Your task to perform on an android device: turn on airplane mode Image 0: 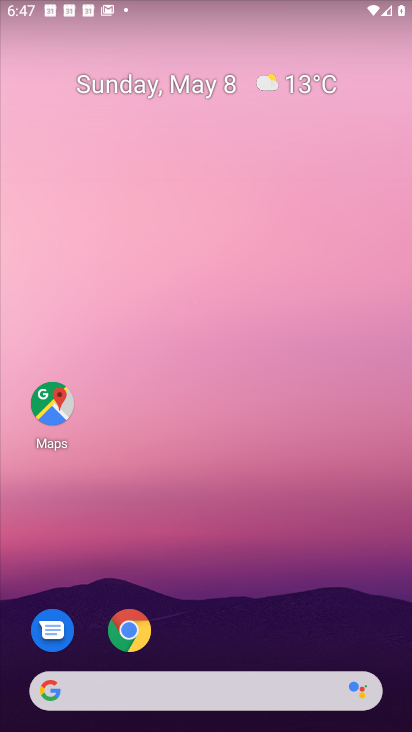
Step 0: drag from (226, 570) to (109, 55)
Your task to perform on an android device: turn on airplane mode Image 1: 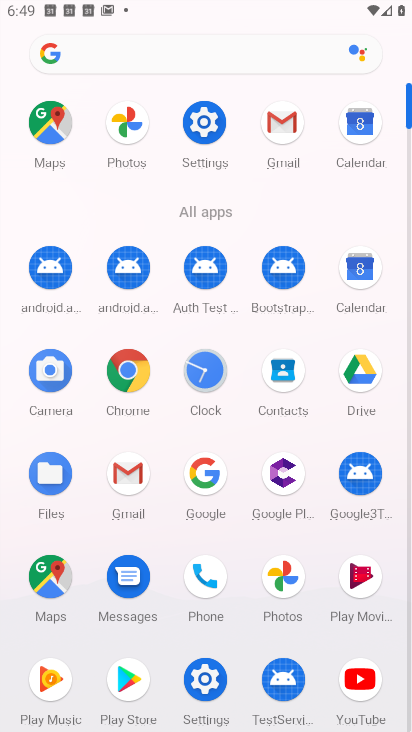
Step 1: click (209, 115)
Your task to perform on an android device: turn on airplane mode Image 2: 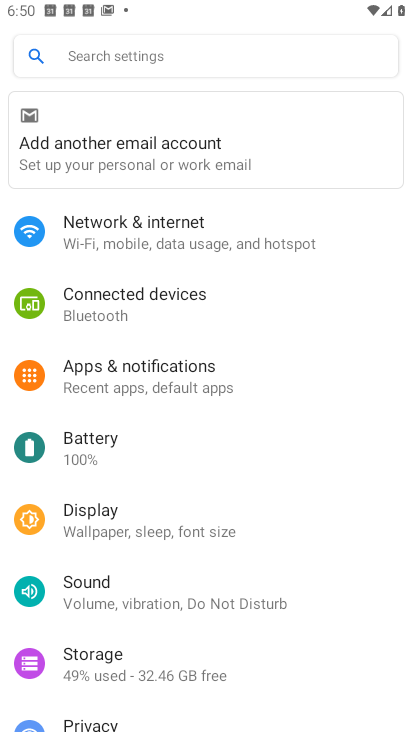
Step 2: click (110, 378)
Your task to perform on an android device: turn on airplane mode Image 3: 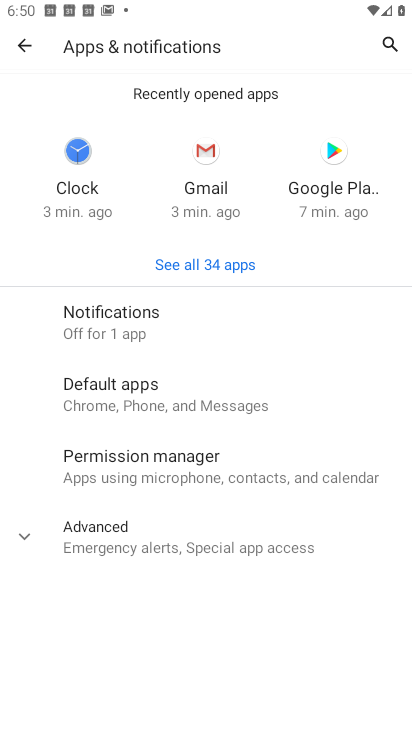
Step 3: click (114, 311)
Your task to perform on an android device: turn on airplane mode Image 4: 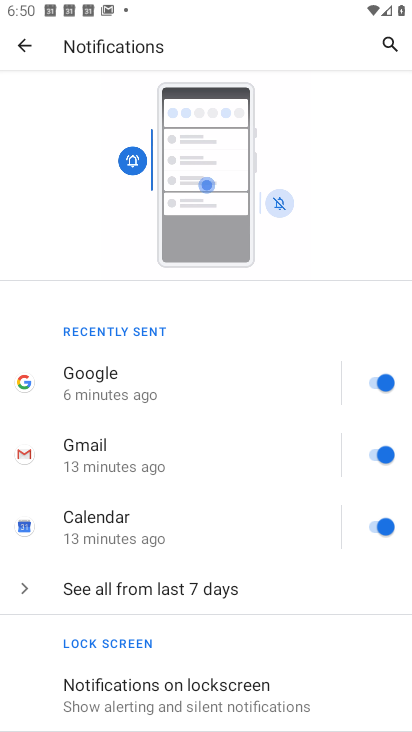
Step 4: task complete